Your task to perform on an android device: Go to Wikipedia Image 0: 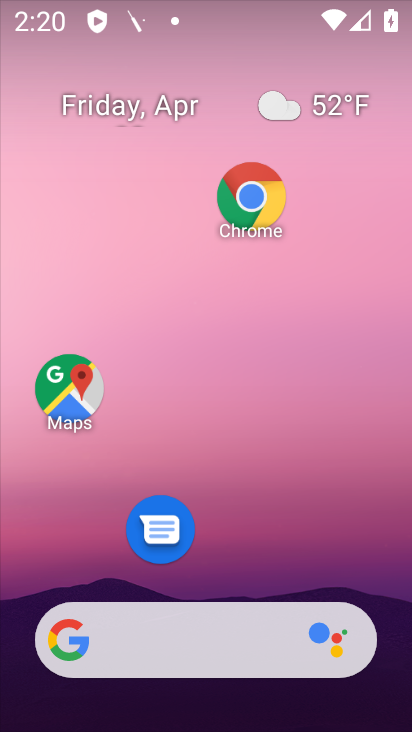
Step 0: click (205, 578)
Your task to perform on an android device: Go to Wikipedia Image 1: 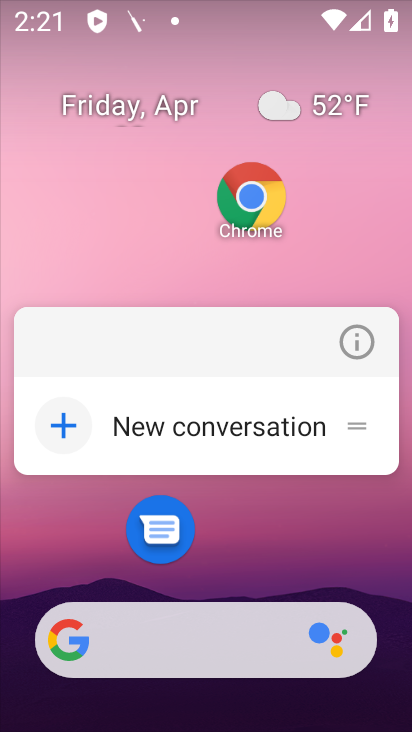
Step 1: click (336, 509)
Your task to perform on an android device: Go to Wikipedia Image 2: 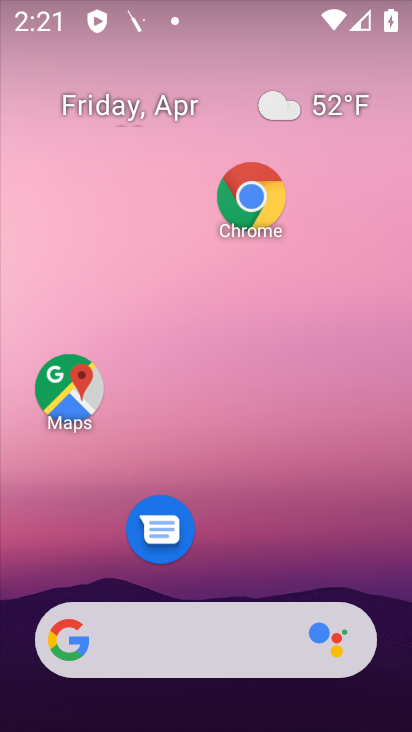
Step 2: click (185, 648)
Your task to perform on an android device: Go to Wikipedia Image 3: 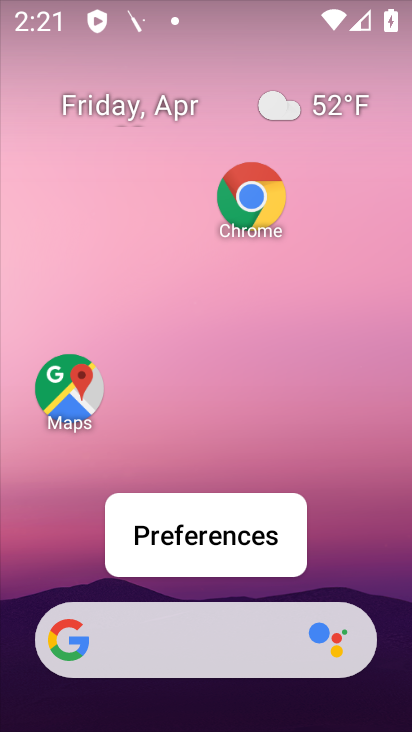
Step 3: click (164, 629)
Your task to perform on an android device: Go to Wikipedia Image 4: 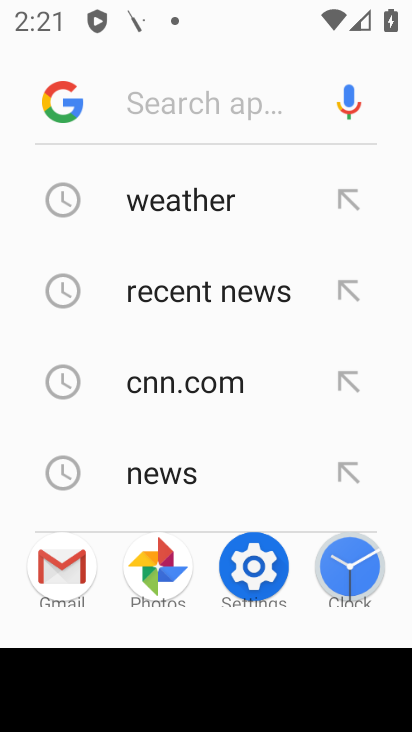
Step 4: type "Wikipedia"
Your task to perform on an android device: Go to Wikipedia Image 5: 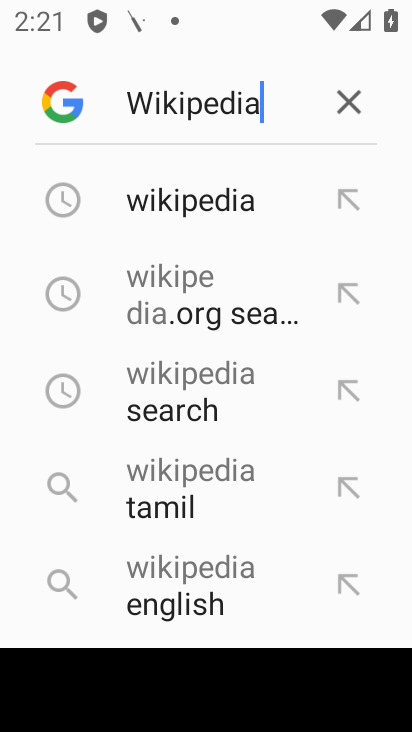
Step 5: click (210, 208)
Your task to perform on an android device: Go to Wikipedia Image 6: 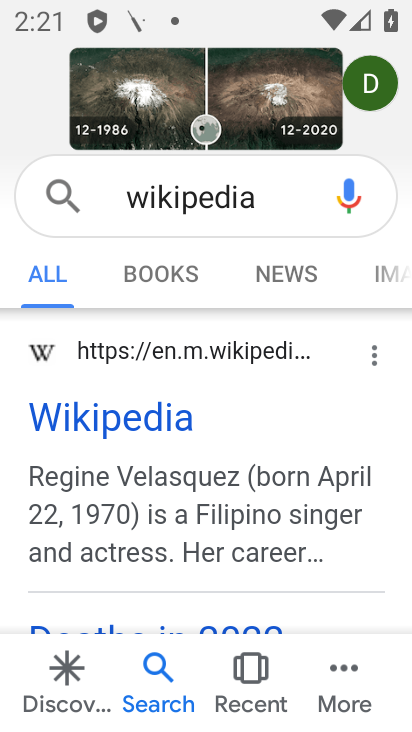
Step 6: click (145, 421)
Your task to perform on an android device: Go to Wikipedia Image 7: 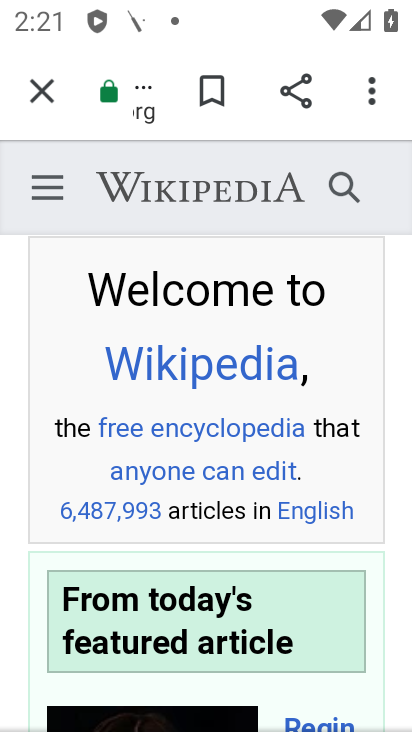
Step 7: task complete